Your task to perform on an android device: check data usage Image 0: 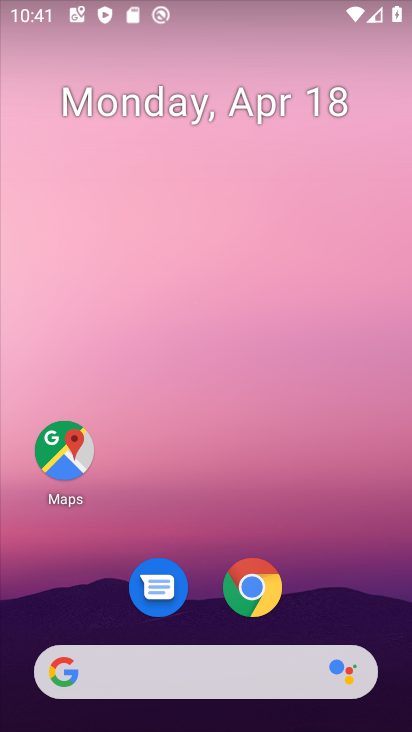
Step 0: drag from (345, 458) to (350, 84)
Your task to perform on an android device: check data usage Image 1: 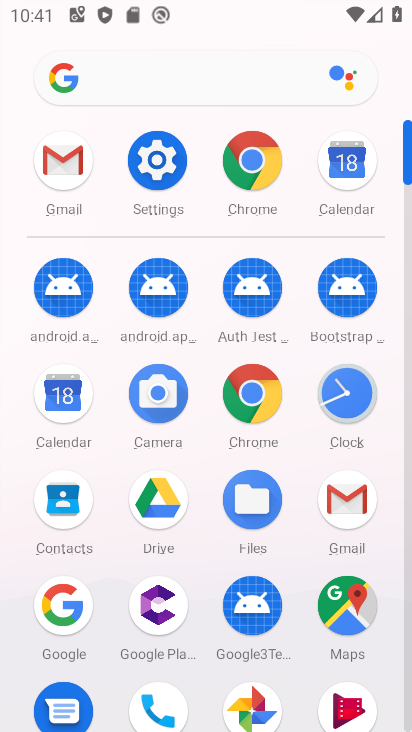
Step 1: click (164, 168)
Your task to perform on an android device: check data usage Image 2: 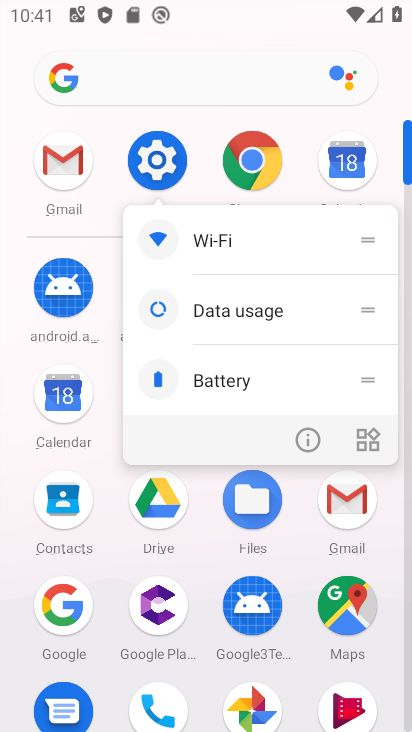
Step 2: click (166, 173)
Your task to perform on an android device: check data usage Image 3: 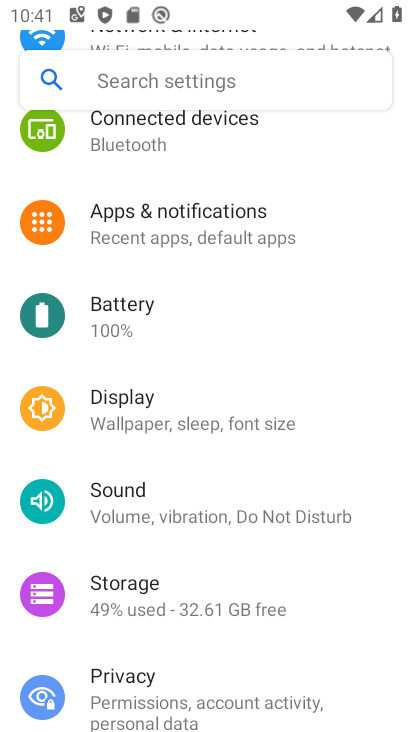
Step 3: drag from (313, 197) to (319, 594)
Your task to perform on an android device: check data usage Image 4: 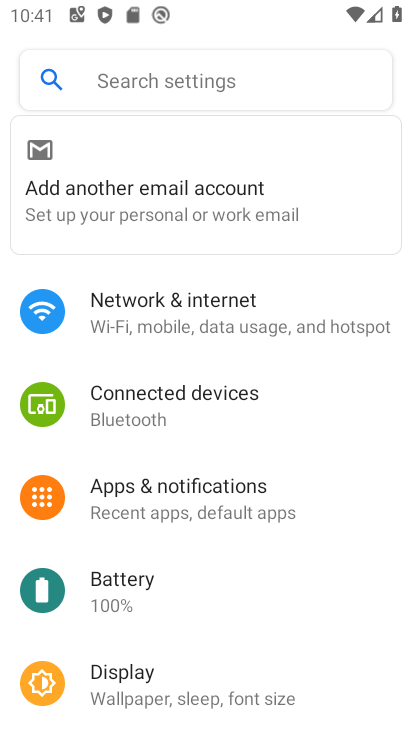
Step 4: click (213, 313)
Your task to perform on an android device: check data usage Image 5: 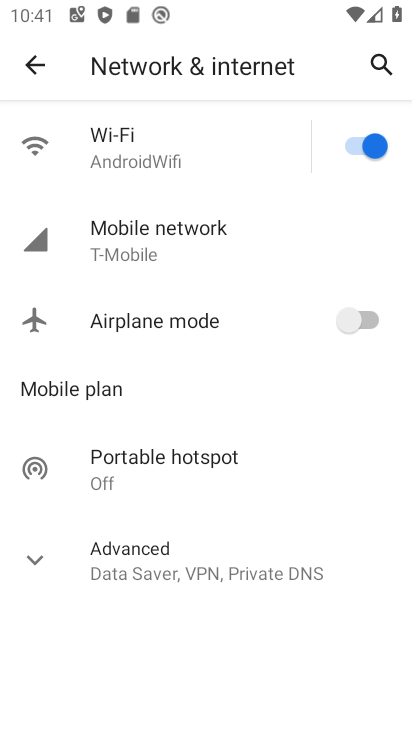
Step 5: click (188, 230)
Your task to perform on an android device: check data usage Image 6: 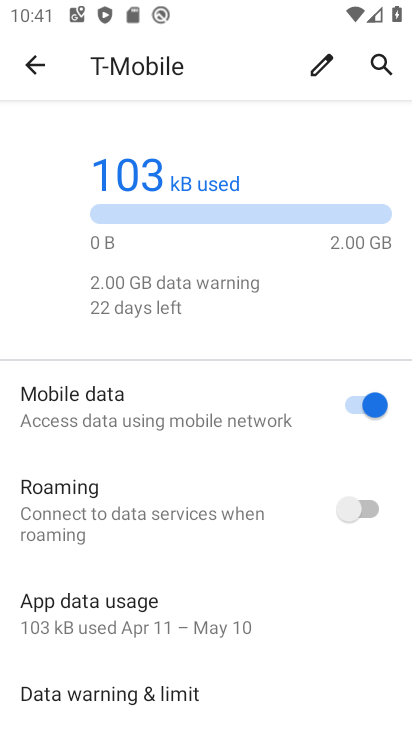
Step 6: click (104, 608)
Your task to perform on an android device: check data usage Image 7: 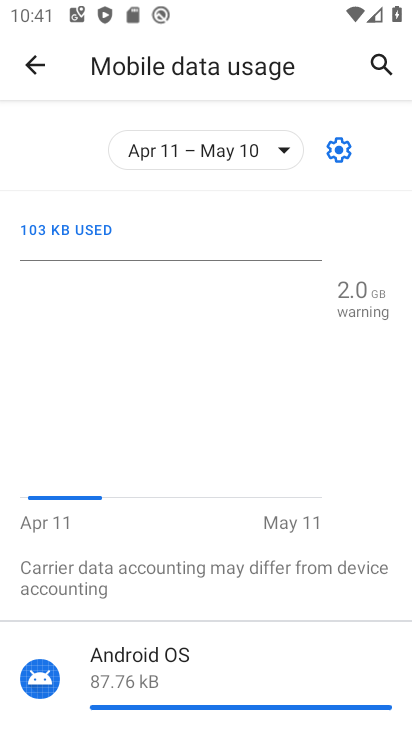
Step 7: task complete